Your task to perform on an android device: turn on sleep mode Image 0: 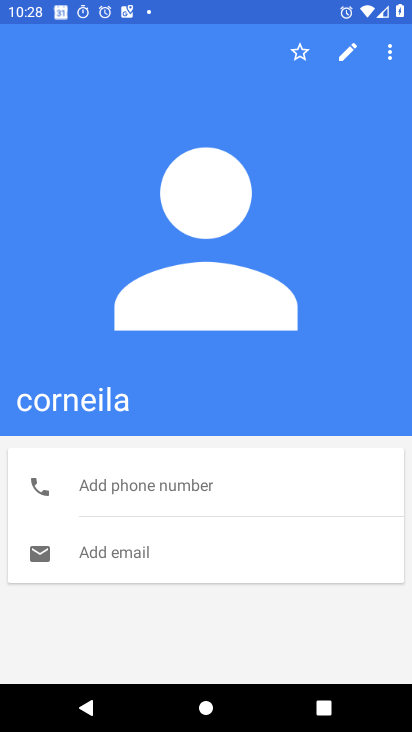
Step 0: press home button
Your task to perform on an android device: turn on sleep mode Image 1: 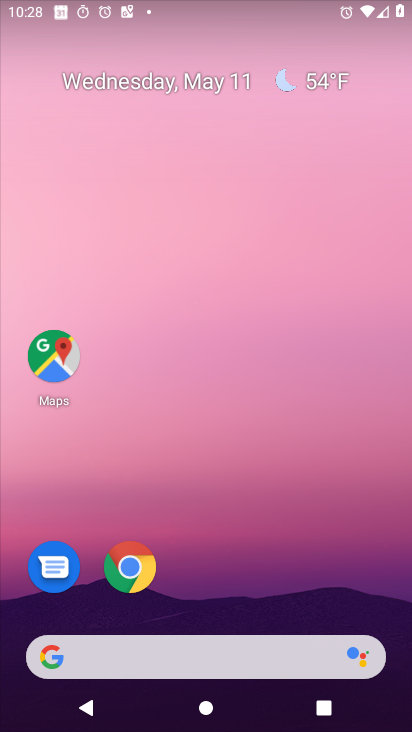
Step 1: drag from (190, 591) to (301, 1)
Your task to perform on an android device: turn on sleep mode Image 2: 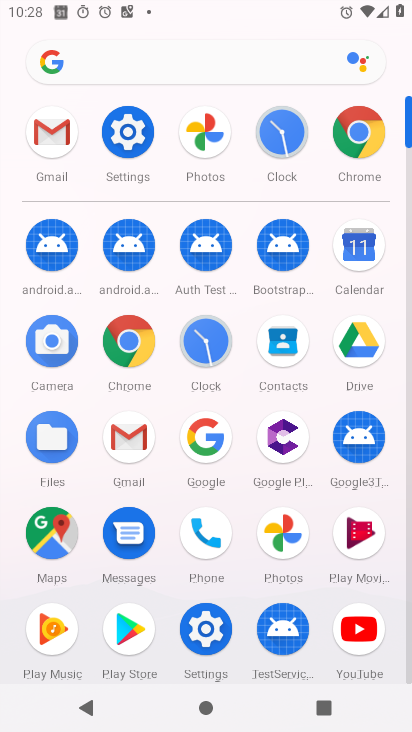
Step 2: click (136, 130)
Your task to perform on an android device: turn on sleep mode Image 3: 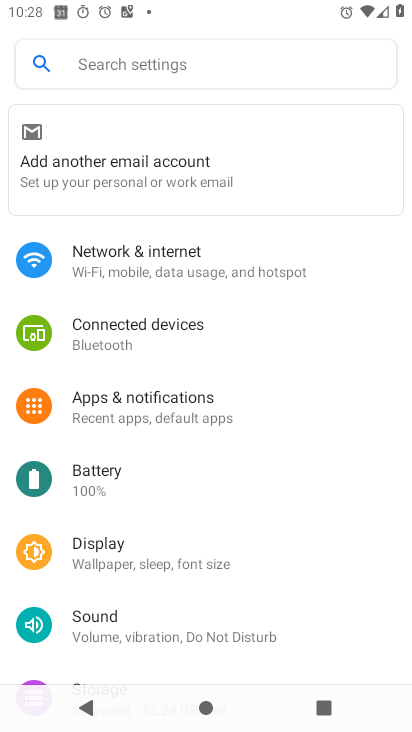
Step 3: click (187, 68)
Your task to perform on an android device: turn on sleep mode Image 4: 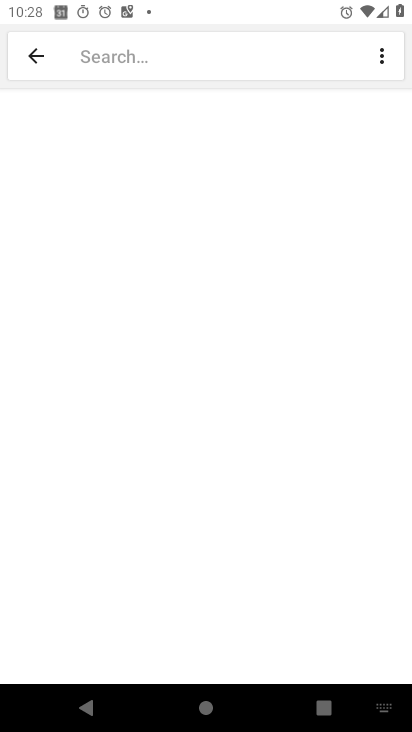
Step 4: type "sleep mode"
Your task to perform on an android device: turn on sleep mode Image 5: 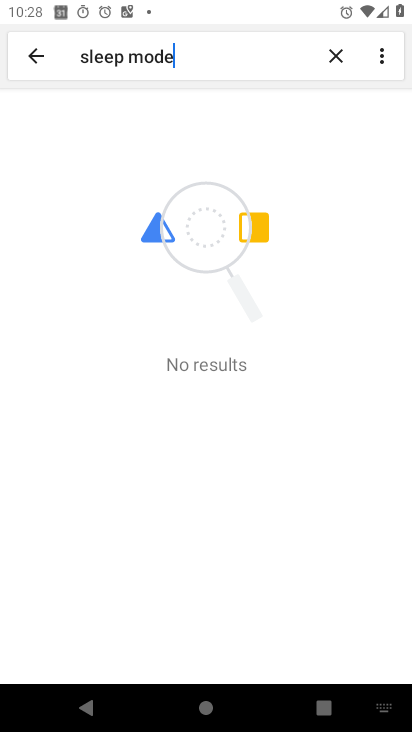
Step 5: task complete